Your task to perform on an android device: When is my next appointment? Image 0: 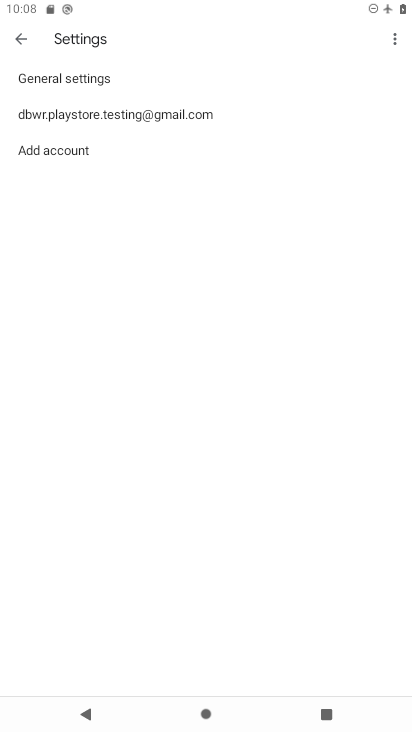
Step 0: press home button
Your task to perform on an android device: When is my next appointment? Image 1: 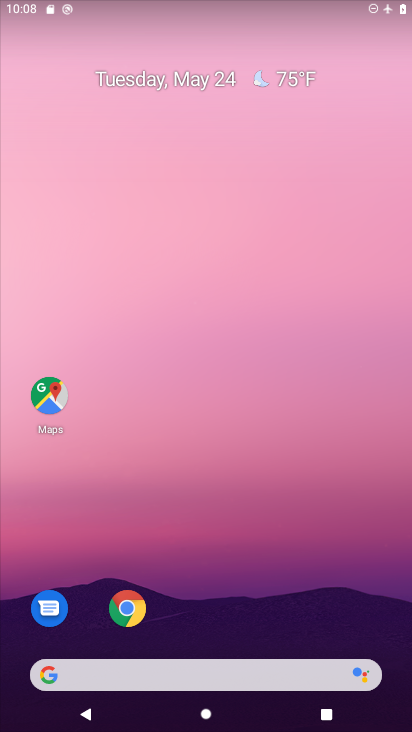
Step 1: click (178, 80)
Your task to perform on an android device: When is my next appointment? Image 2: 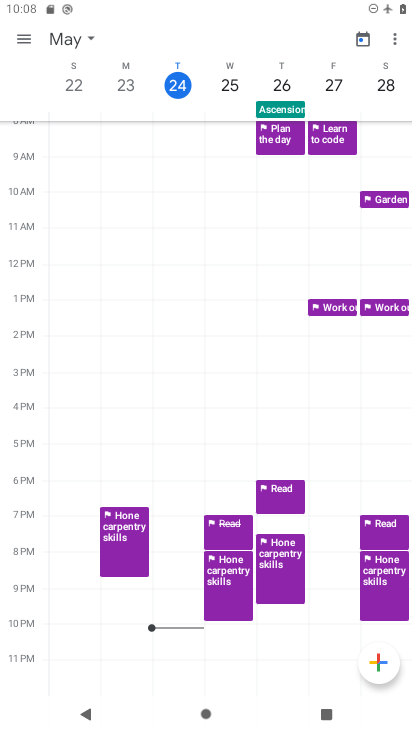
Step 2: task complete